Your task to perform on an android device: turn on airplane mode Image 0: 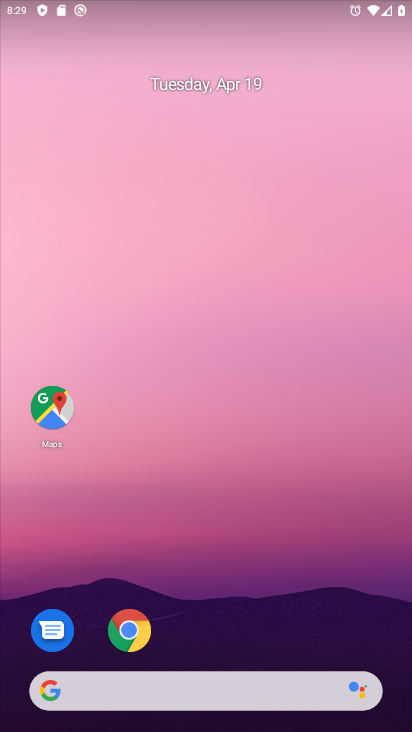
Step 0: drag from (251, 637) to (283, 186)
Your task to perform on an android device: turn on airplane mode Image 1: 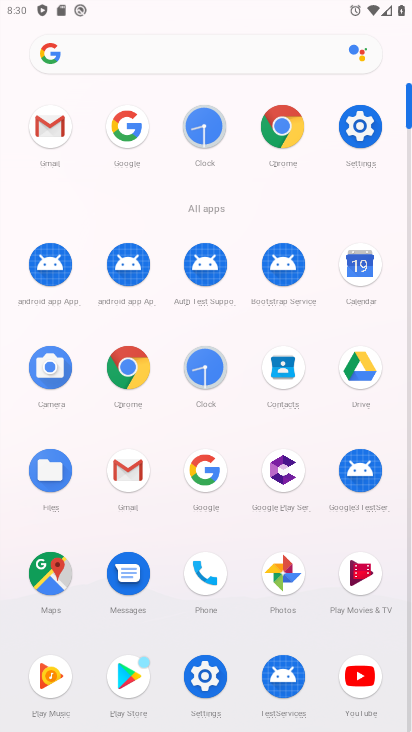
Step 1: click (371, 128)
Your task to perform on an android device: turn on airplane mode Image 2: 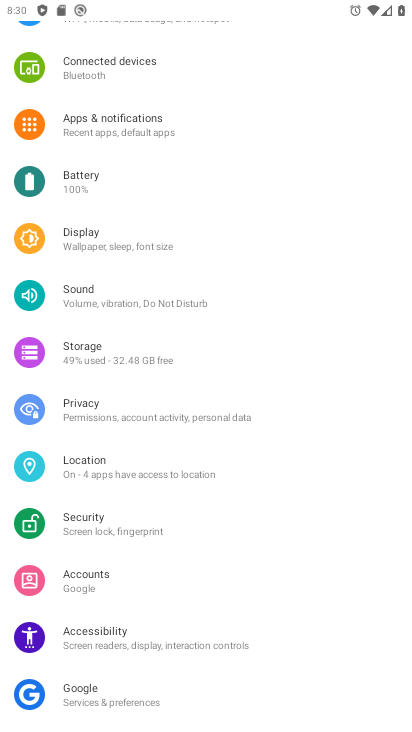
Step 2: drag from (187, 254) to (129, 543)
Your task to perform on an android device: turn on airplane mode Image 3: 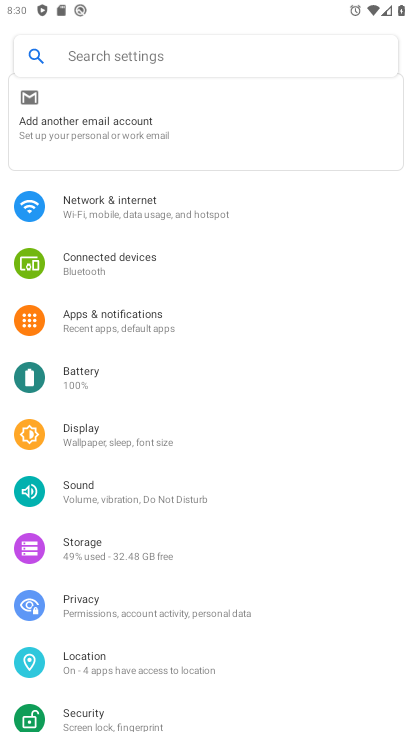
Step 3: click (252, 206)
Your task to perform on an android device: turn on airplane mode Image 4: 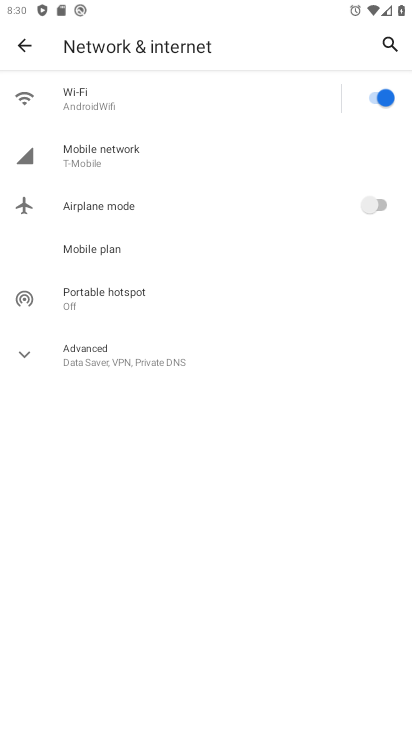
Step 4: click (368, 226)
Your task to perform on an android device: turn on airplane mode Image 5: 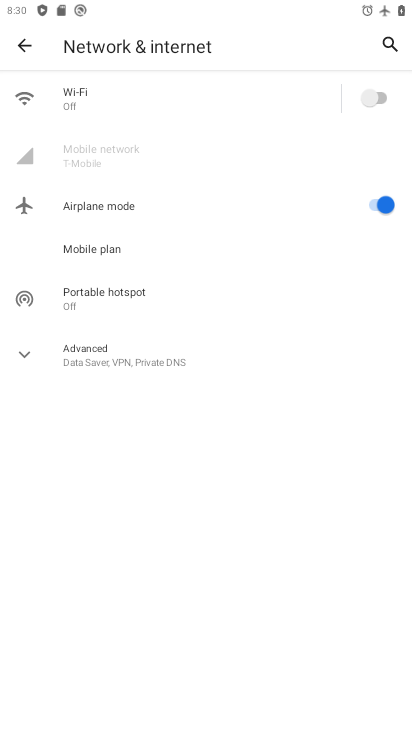
Step 5: task complete